Your task to perform on an android device: turn on showing notifications on the lock screen Image 0: 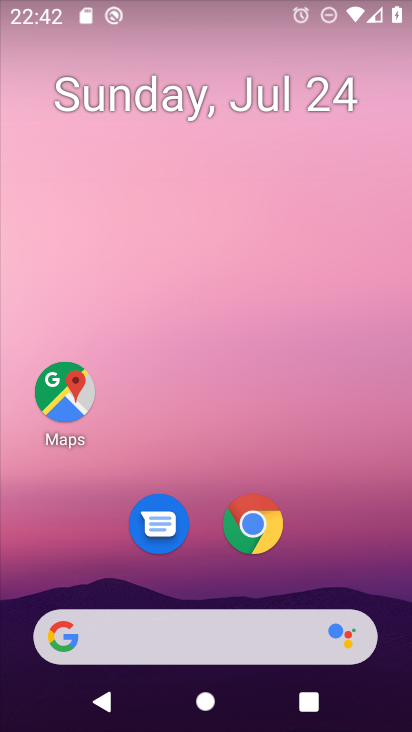
Step 0: press home button
Your task to perform on an android device: turn on showing notifications on the lock screen Image 1: 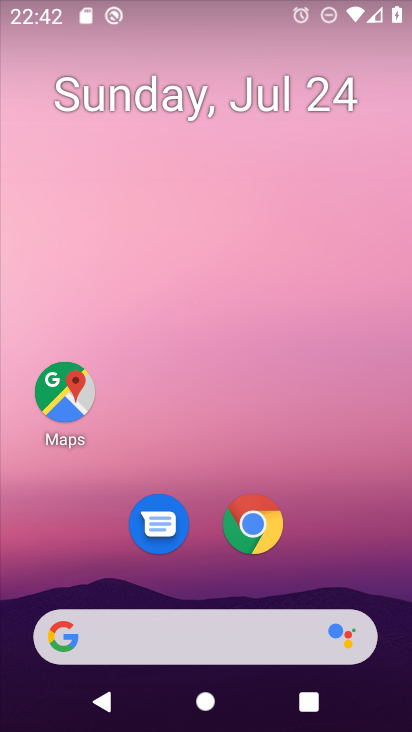
Step 1: drag from (209, 650) to (273, 82)
Your task to perform on an android device: turn on showing notifications on the lock screen Image 2: 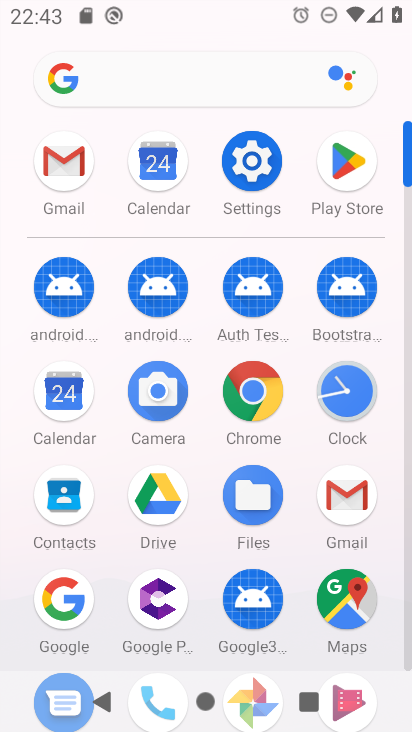
Step 2: click (255, 162)
Your task to perform on an android device: turn on showing notifications on the lock screen Image 3: 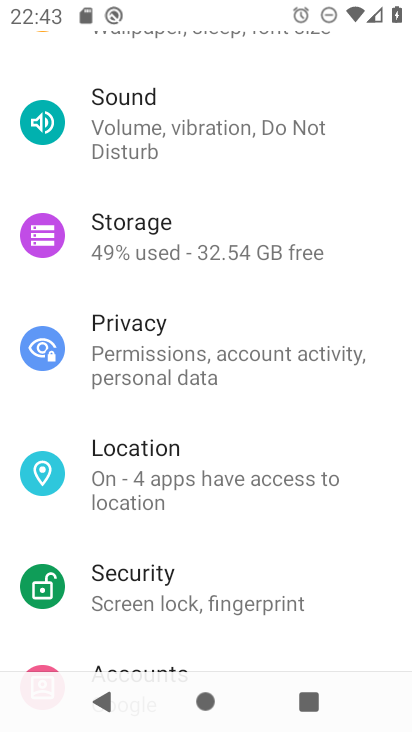
Step 3: drag from (324, 192) to (362, 603)
Your task to perform on an android device: turn on showing notifications on the lock screen Image 4: 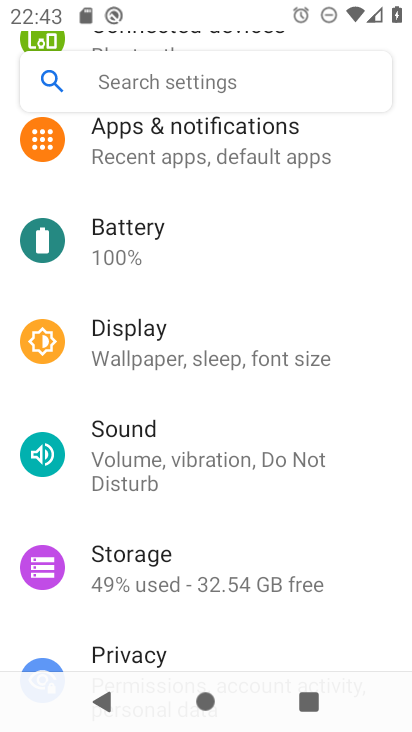
Step 4: click (225, 137)
Your task to perform on an android device: turn on showing notifications on the lock screen Image 5: 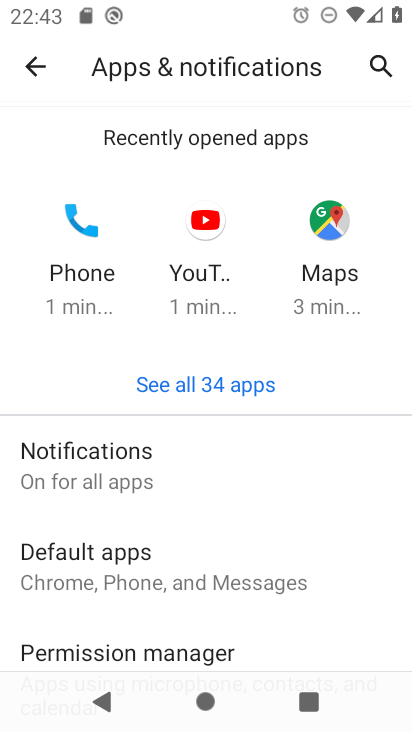
Step 5: click (102, 476)
Your task to perform on an android device: turn on showing notifications on the lock screen Image 6: 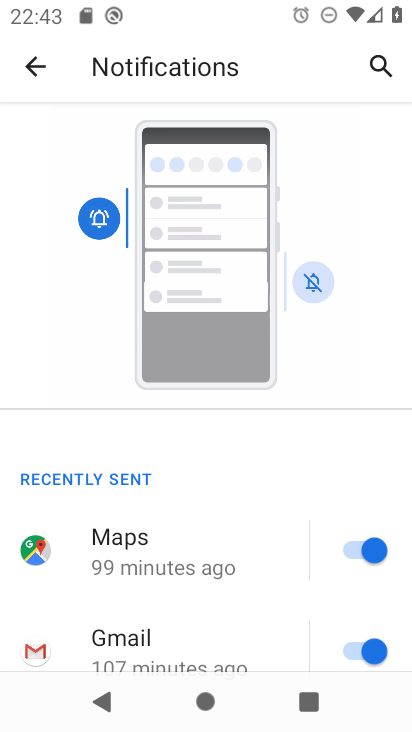
Step 6: drag from (176, 617) to (220, 194)
Your task to perform on an android device: turn on showing notifications on the lock screen Image 7: 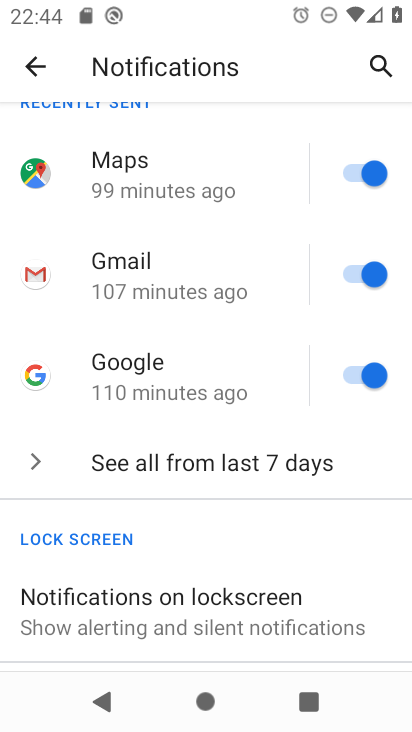
Step 7: drag from (190, 555) to (247, 274)
Your task to perform on an android device: turn on showing notifications on the lock screen Image 8: 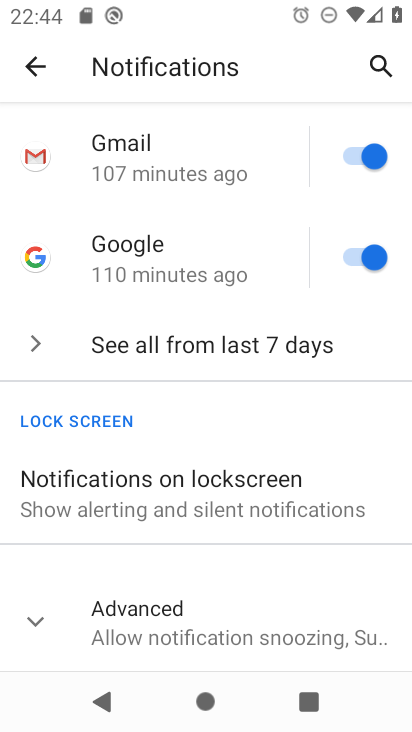
Step 8: click (154, 482)
Your task to perform on an android device: turn on showing notifications on the lock screen Image 9: 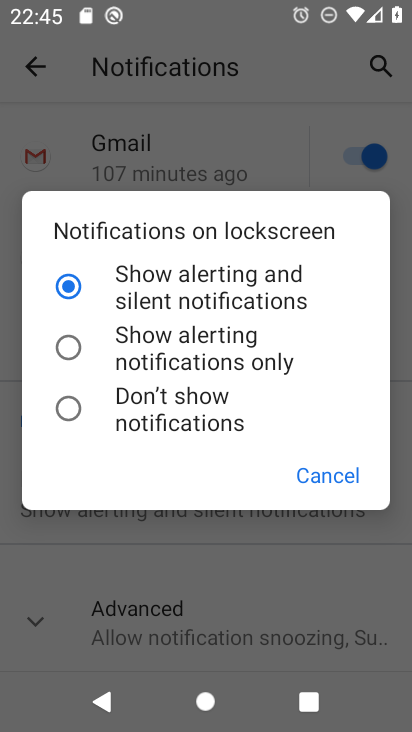
Step 9: task complete